Your task to perform on an android device: Go to Yahoo.com Image 0: 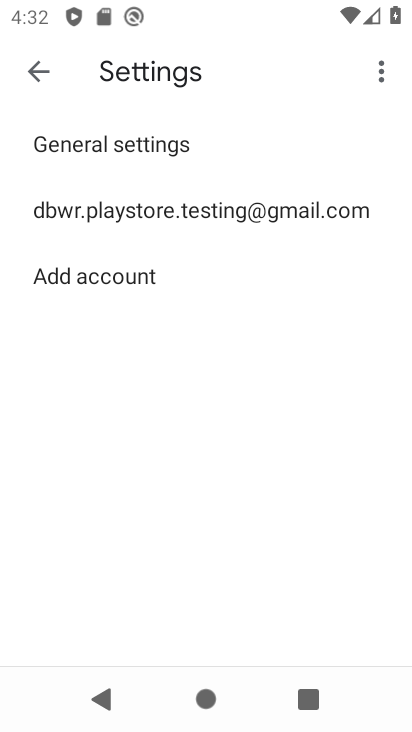
Step 0: press home button
Your task to perform on an android device: Go to Yahoo.com Image 1: 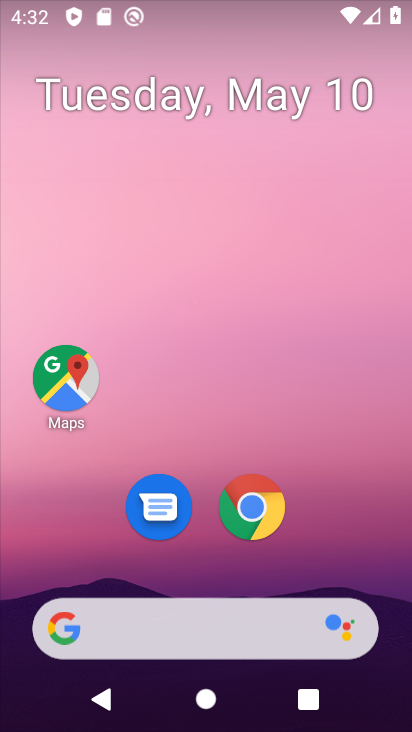
Step 1: click (264, 517)
Your task to perform on an android device: Go to Yahoo.com Image 2: 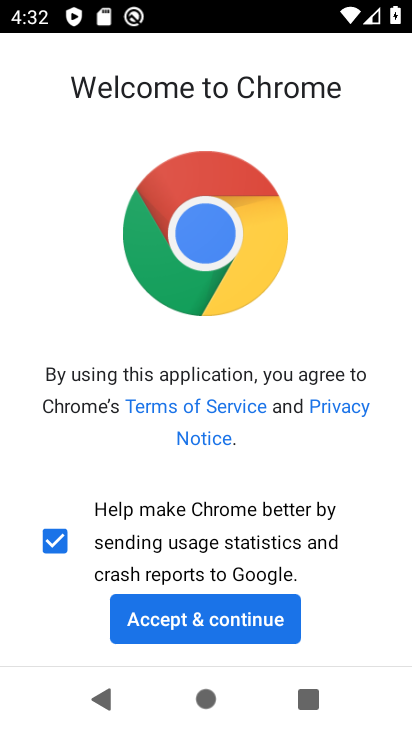
Step 2: click (205, 614)
Your task to perform on an android device: Go to Yahoo.com Image 3: 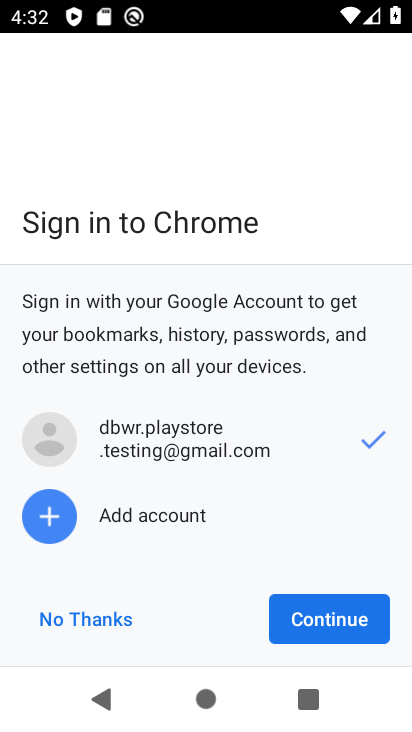
Step 3: click (304, 619)
Your task to perform on an android device: Go to Yahoo.com Image 4: 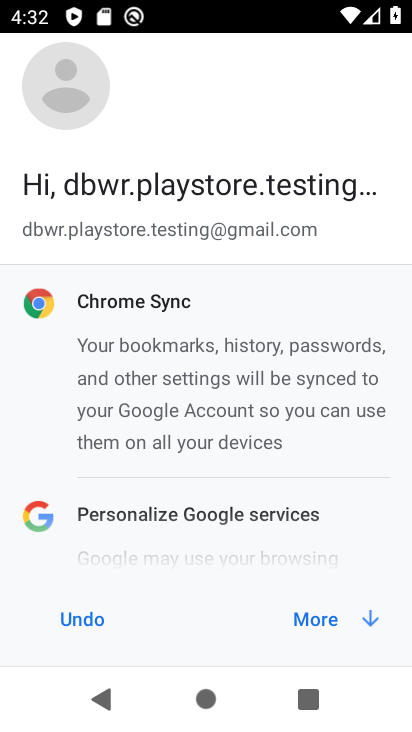
Step 4: click (304, 619)
Your task to perform on an android device: Go to Yahoo.com Image 5: 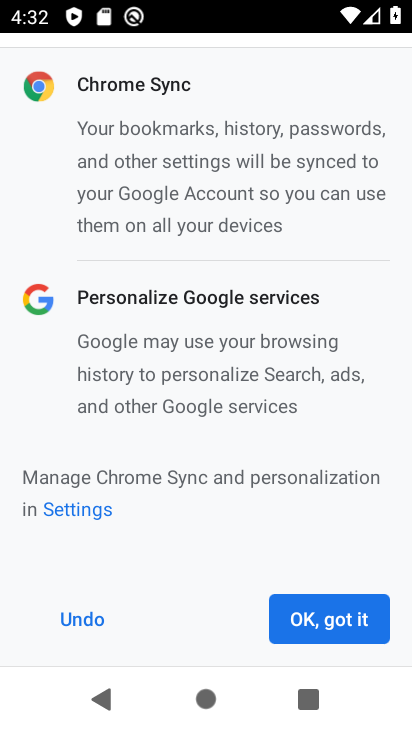
Step 5: click (302, 619)
Your task to perform on an android device: Go to Yahoo.com Image 6: 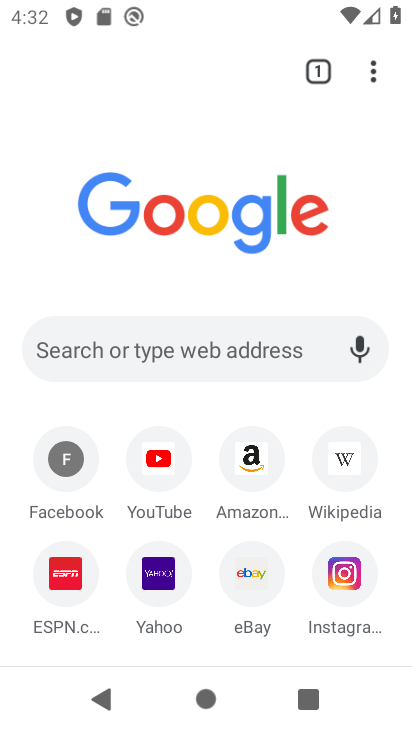
Step 6: click (173, 590)
Your task to perform on an android device: Go to Yahoo.com Image 7: 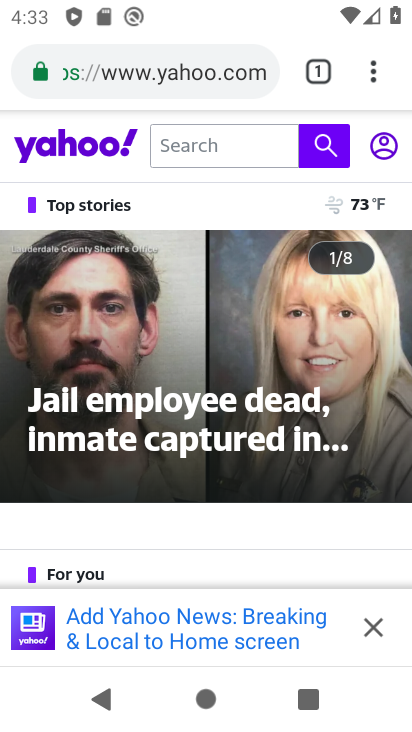
Step 7: task complete